Your task to perform on an android device: Add razer blade to the cart on target.com Image 0: 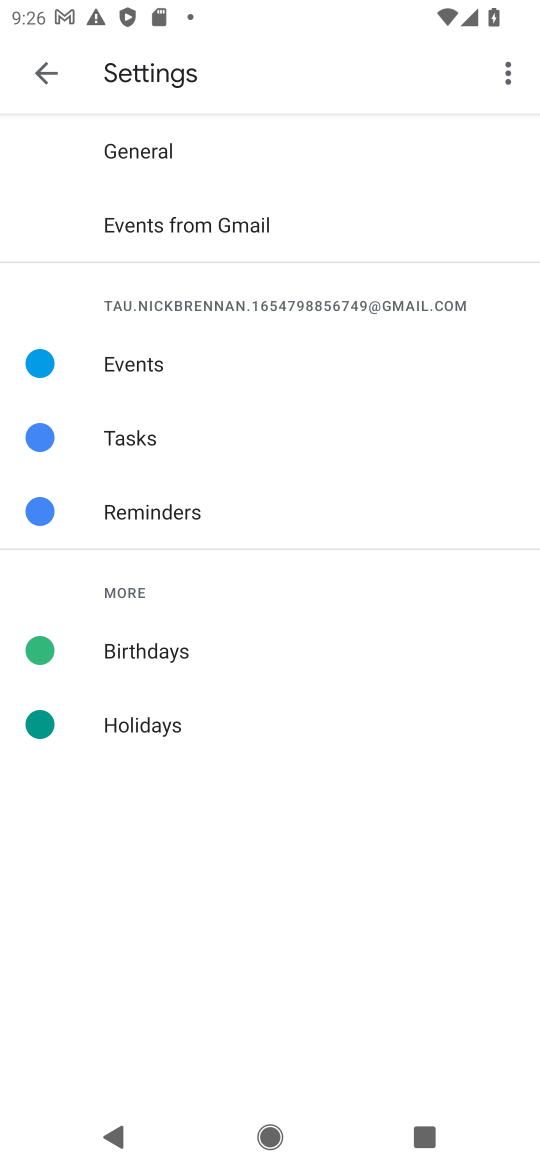
Step 0: press home button
Your task to perform on an android device: Add razer blade to the cart on target.com Image 1: 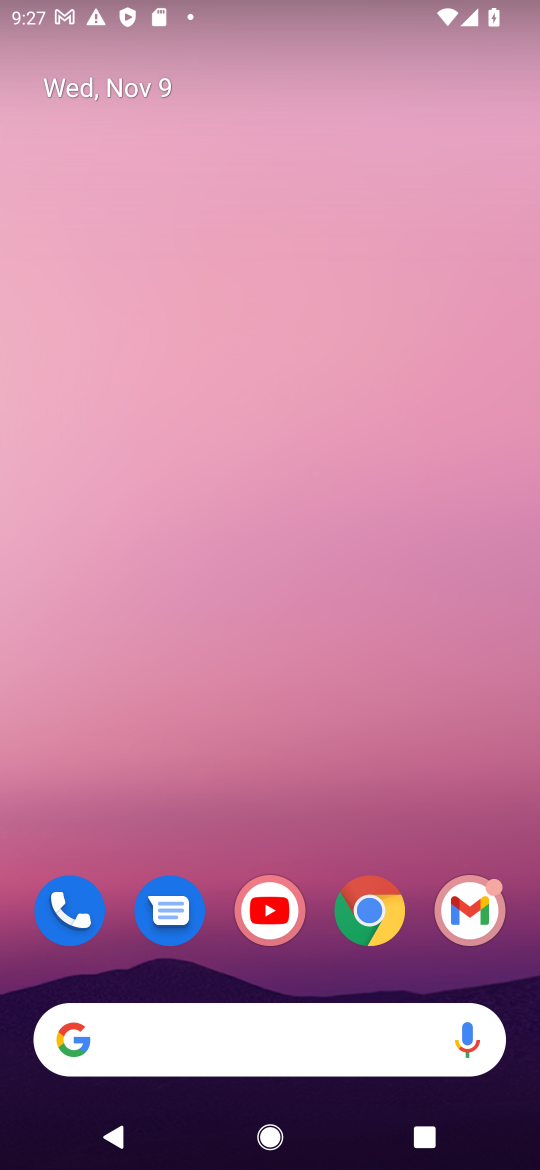
Step 1: click (369, 921)
Your task to perform on an android device: Add razer blade to the cart on target.com Image 2: 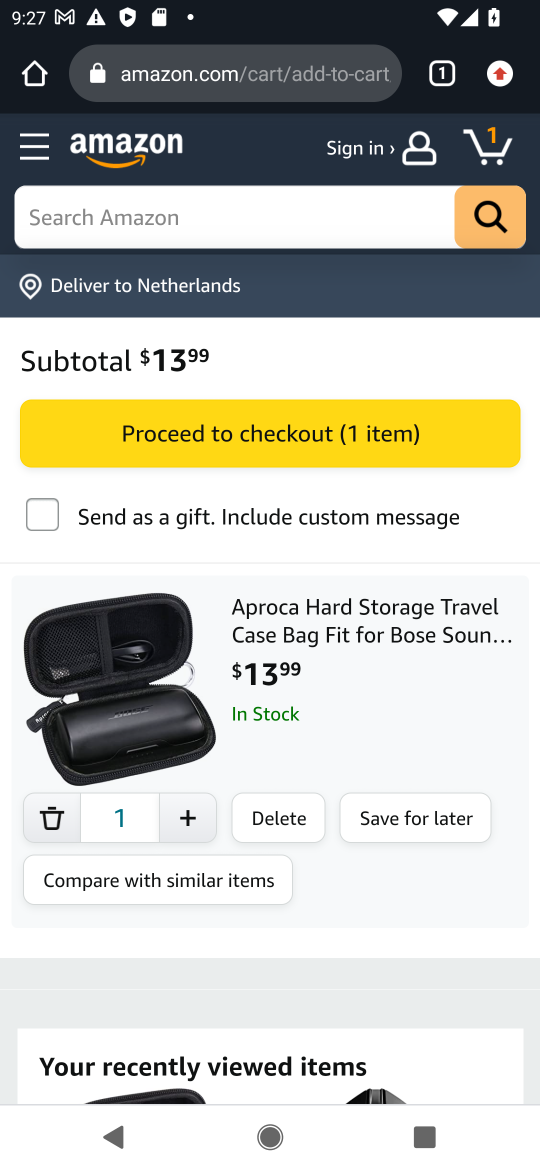
Step 2: click (154, 75)
Your task to perform on an android device: Add razer blade to the cart on target.com Image 3: 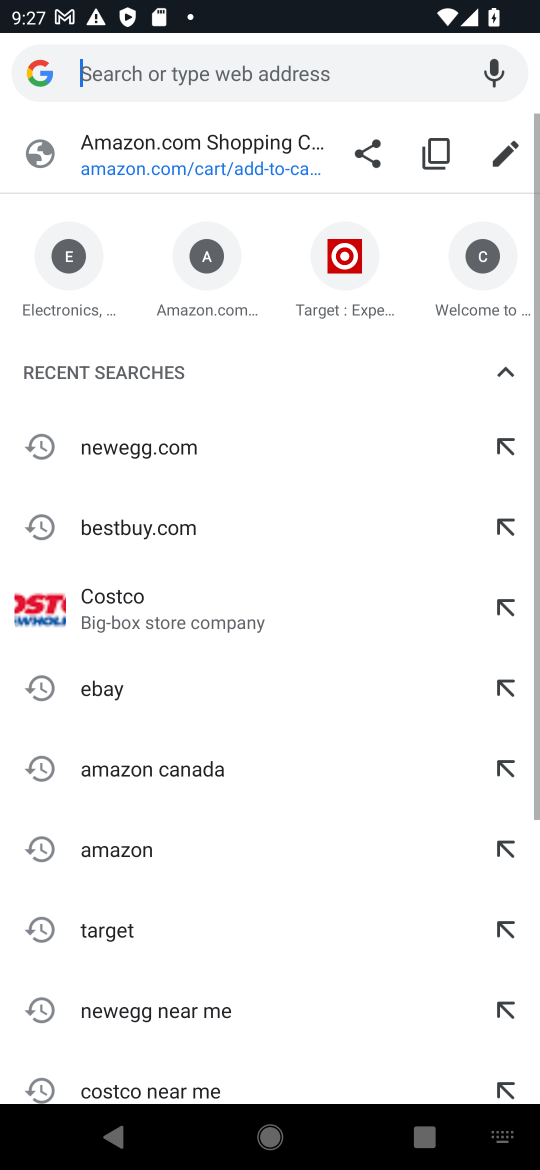
Step 3: click (325, 287)
Your task to perform on an android device: Add razer blade to the cart on target.com Image 4: 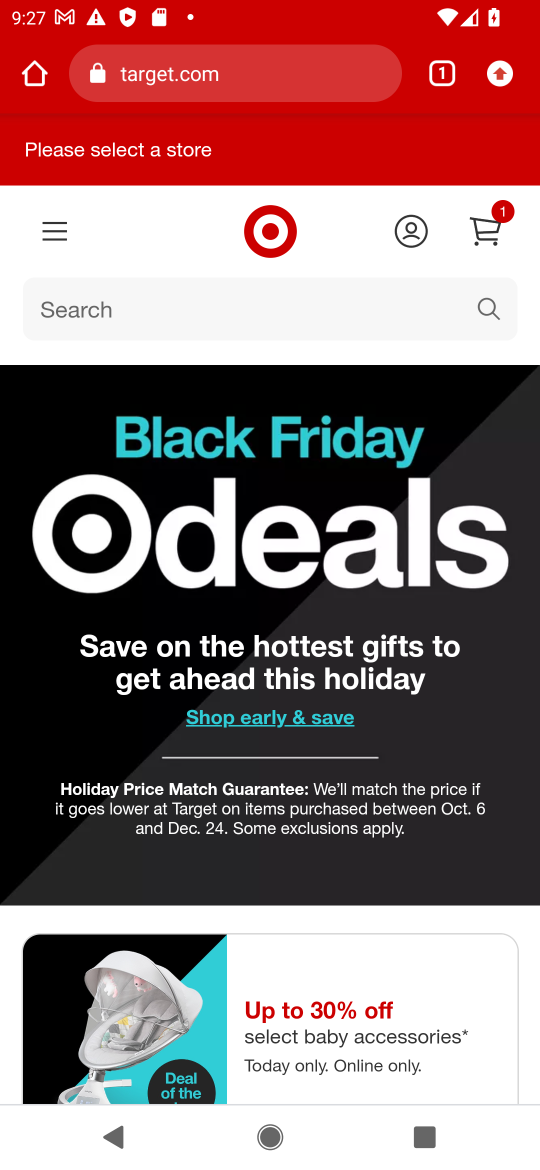
Step 4: click (480, 306)
Your task to perform on an android device: Add razer blade to the cart on target.com Image 5: 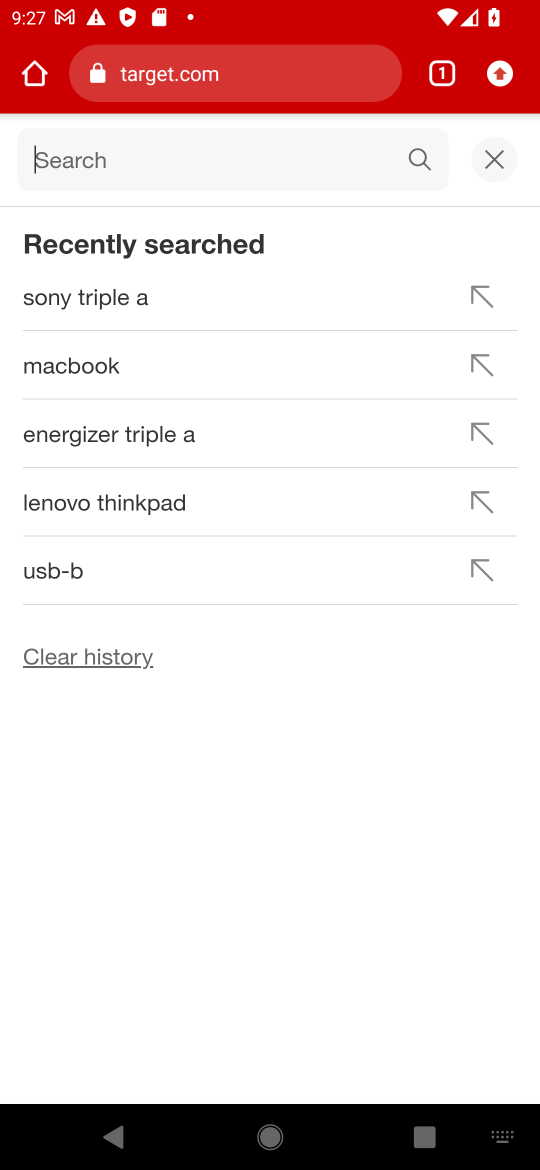
Step 5: type "razer blade"
Your task to perform on an android device: Add razer blade to the cart on target.com Image 6: 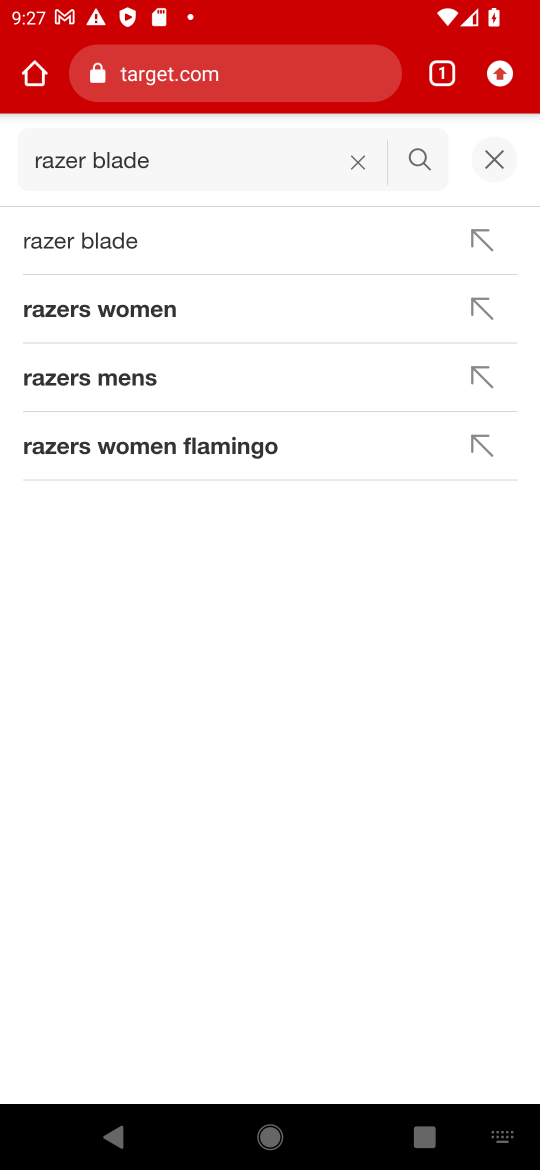
Step 6: click (58, 250)
Your task to perform on an android device: Add razer blade to the cart on target.com Image 7: 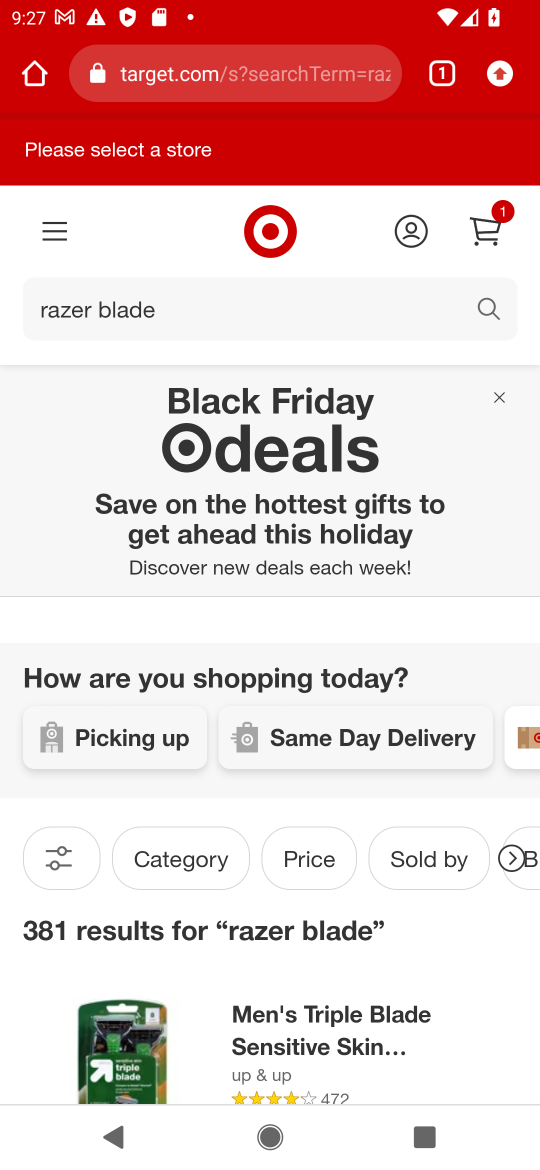
Step 7: task complete